Your task to perform on an android device: empty trash in the gmail app Image 0: 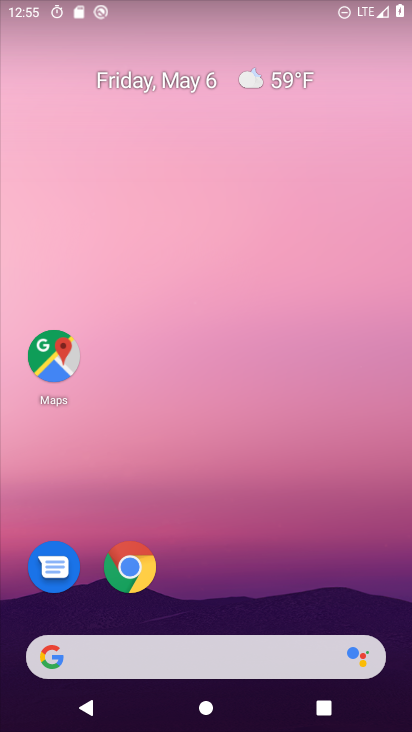
Step 0: drag from (278, 550) to (251, 14)
Your task to perform on an android device: empty trash in the gmail app Image 1: 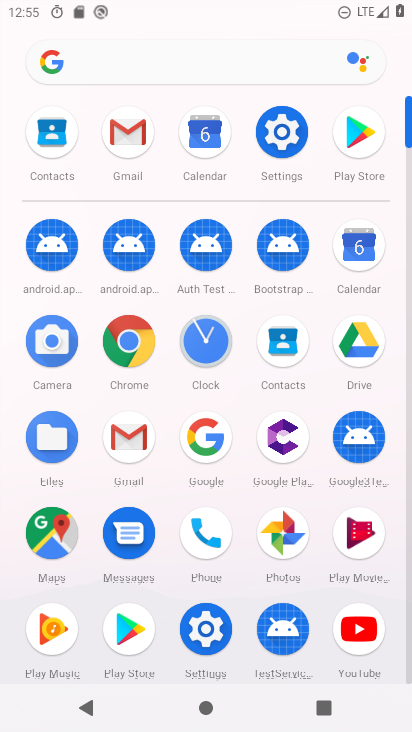
Step 1: click (134, 132)
Your task to perform on an android device: empty trash in the gmail app Image 2: 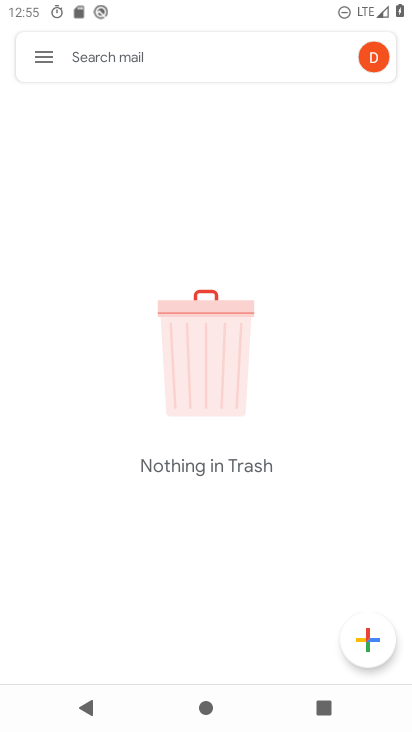
Step 2: task complete